Your task to perform on an android device: Clear the shopping cart on amazon.com. Add "razer nari" to the cart on amazon.com Image 0: 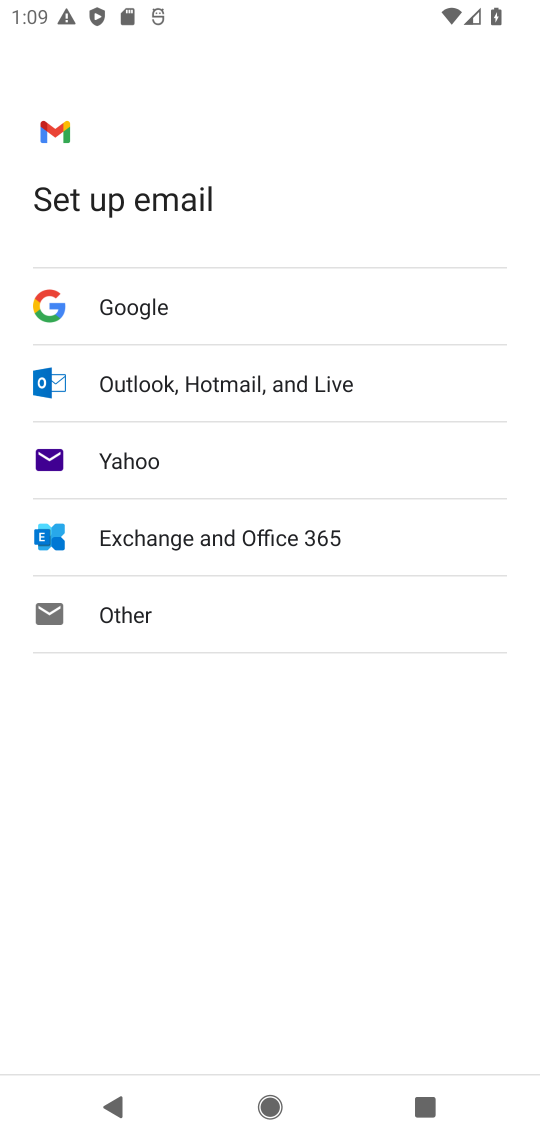
Step 0: press home button
Your task to perform on an android device: Clear the shopping cart on amazon.com. Add "razer nari" to the cart on amazon.com Image 1: 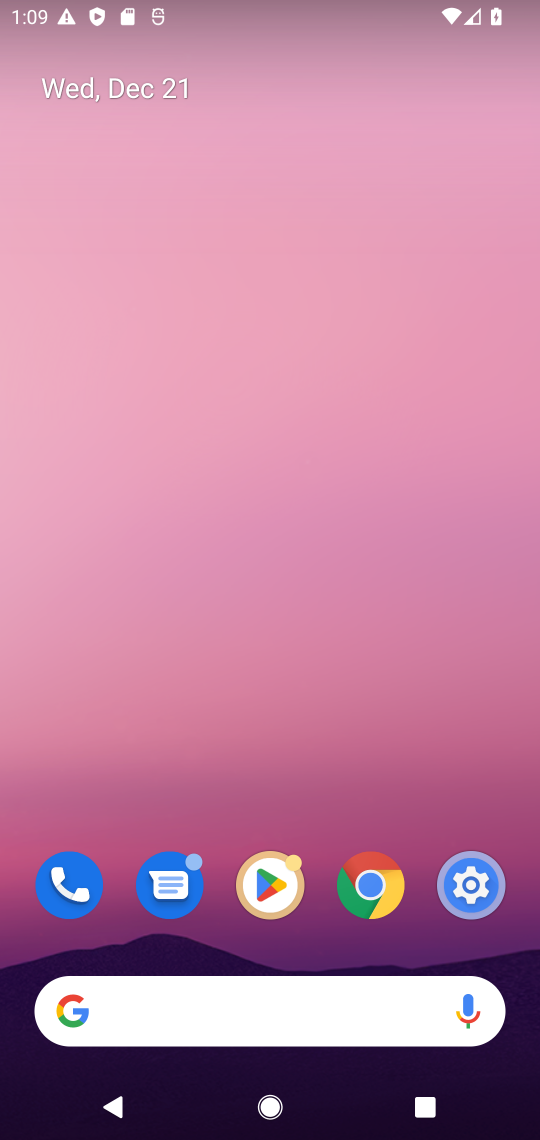
Step 1: drag from (285, 1027) to (296, 18)
Your task to perform on an android device: Clear the shopping cart on amazon.com. Add "razer nari" to the cart on amazon.com Image 2: 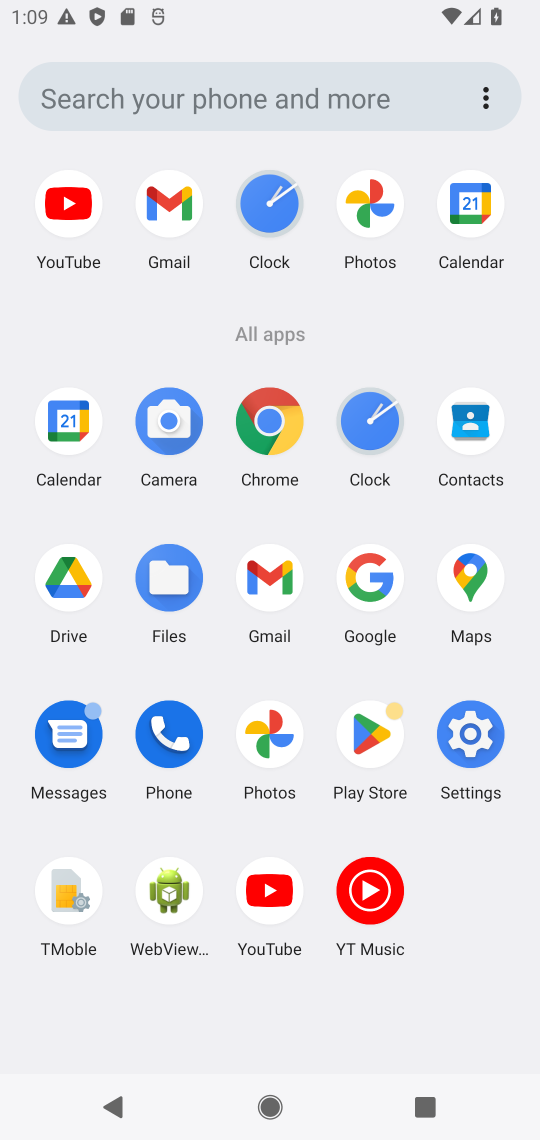
Step 2: click (366, 570)
Your task to perform on an android device: Clear the shopping cart on amazon.com. Add "razer nari" to the cart on amazon.com Image 3: 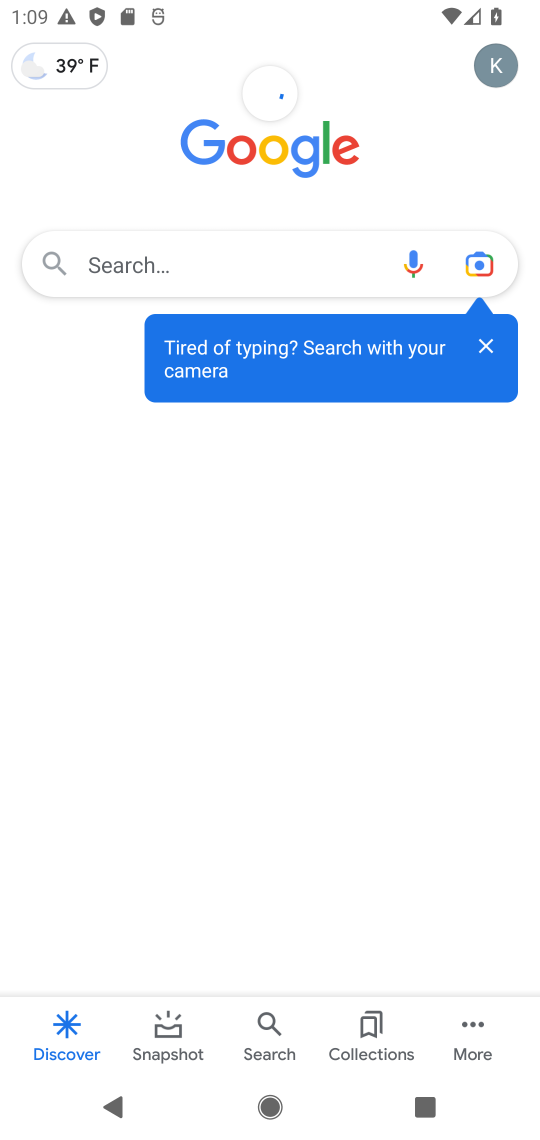
Step 3: click (193, 269)
Your task to perform on an android device: Clear the shopping cart on amazon.com. Add "razer nari" to the cart on amazon.com Image 4: 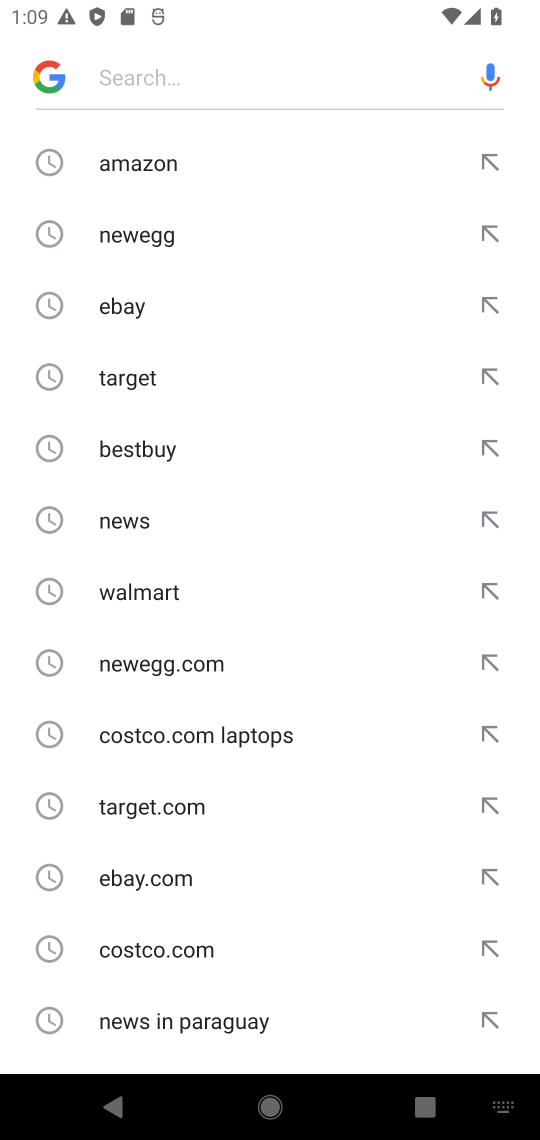
Step 4: click (137, 161)
Your task to perform on an android device: Clear the shopping cart on amazon.com. Add "razer nari" to the cart on amazon.com Image 5: 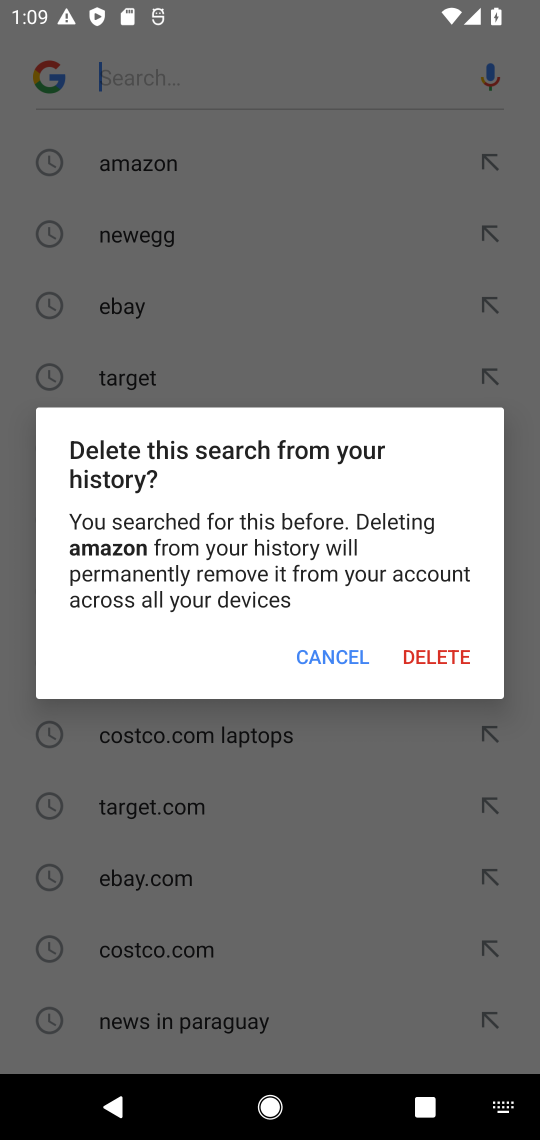
Step 5: click (349, 655)
Your task to perform on an android device: Clear the shopping cart on amazon.com. Add "razer nari" to the cart on amazon.com Image 6: 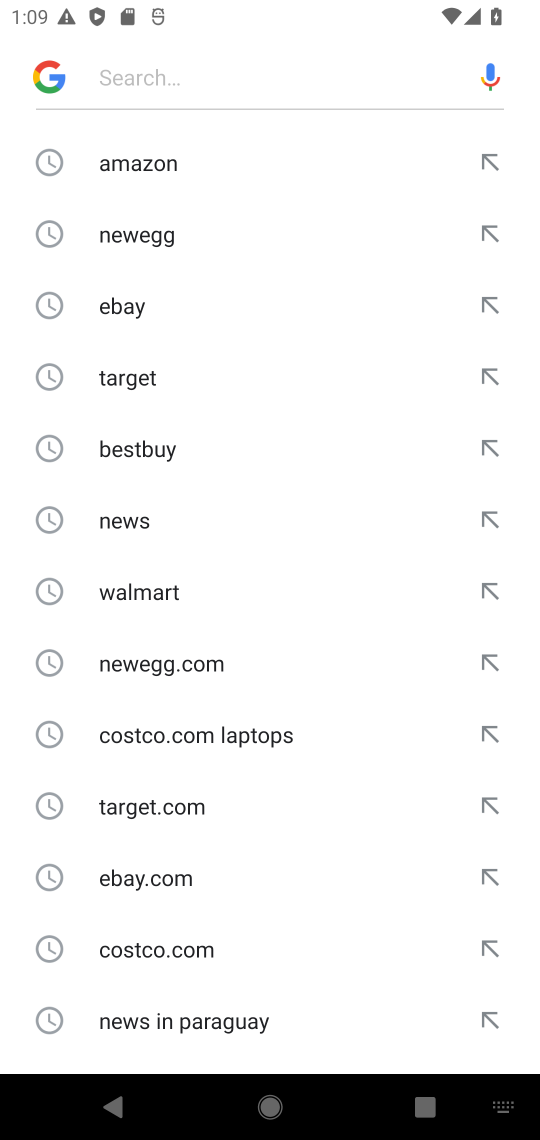
Step 6: click (116, 185)
Your task to perform on an android device: Clear the shopping cart on amazon.com. Add "razer nari" to the cart on amazon.com Image 7: 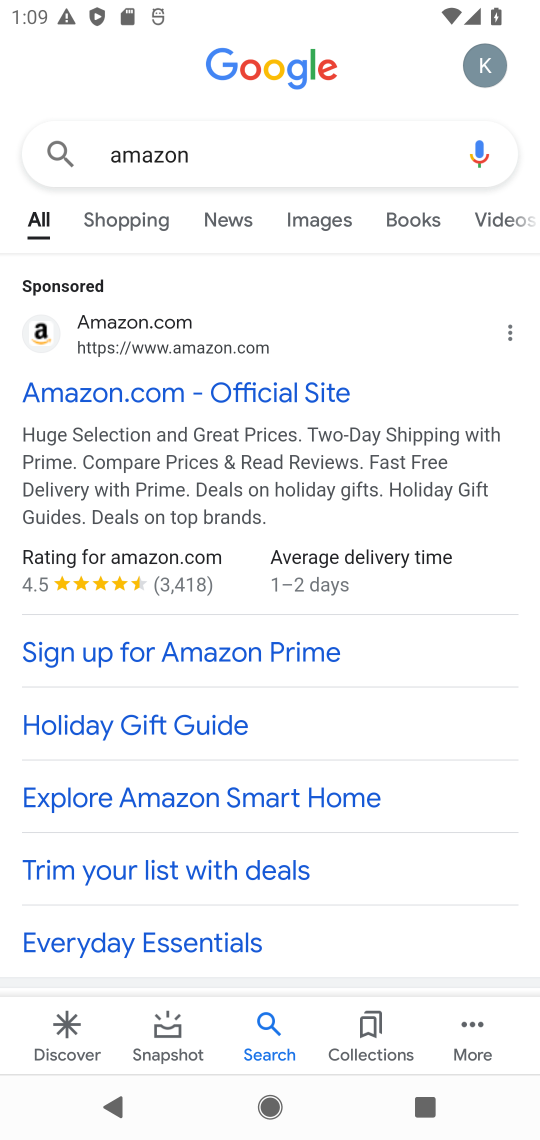
Step 7: click (167, 390)
Your task to perform on an android device: Clear the shopping cart on amazon.com. Add "razer nari" to the cart on amazon.com Image 8: 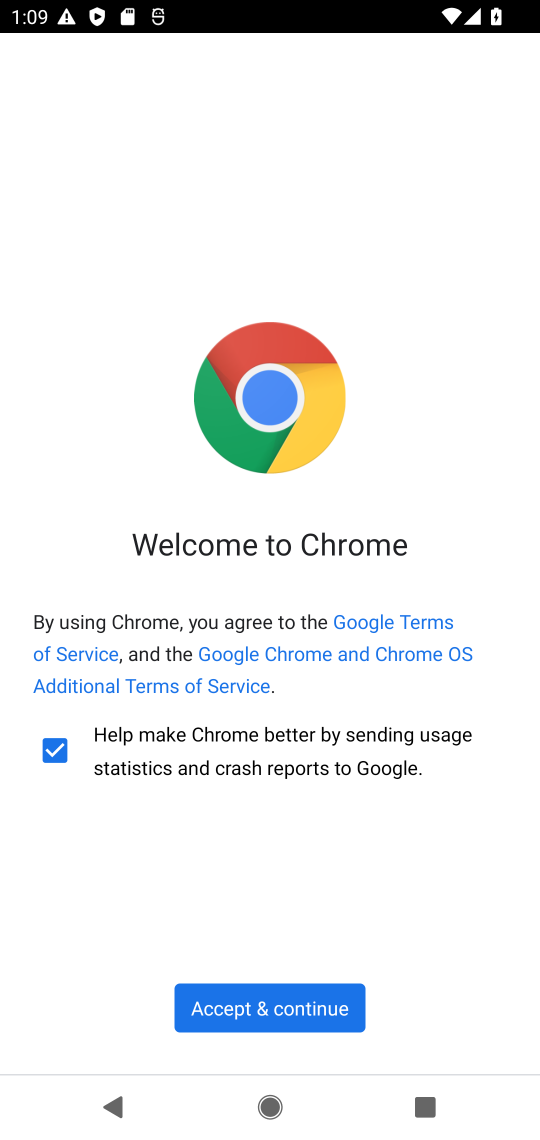
Step 8: click (240, 1006)
Your task to perform on an android device: Clear the shopping cart on amazon.com. Add "razer nari" to the cart on amazon.com Image 9: 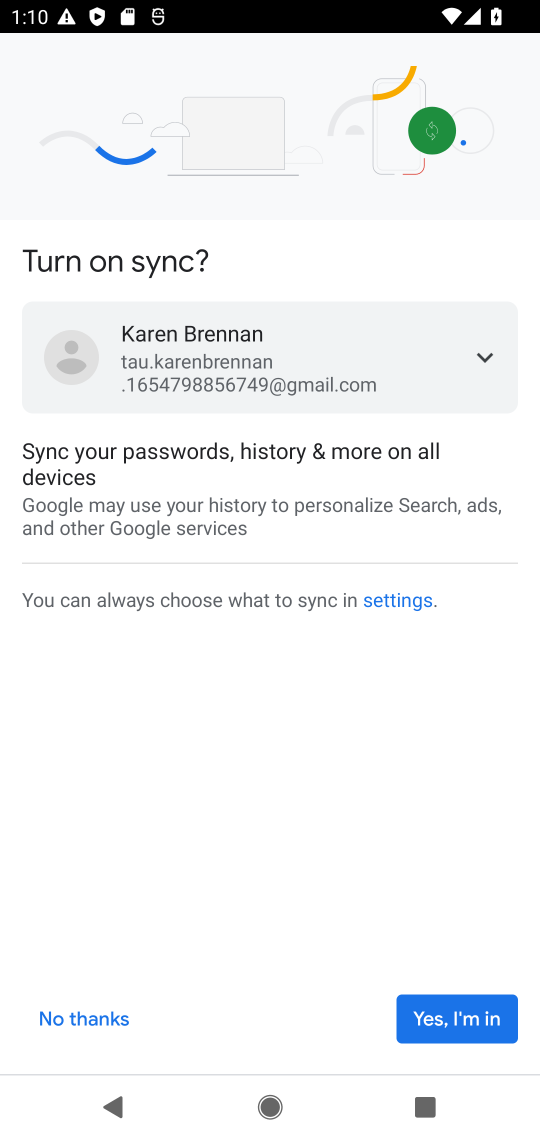
Step 9: click (408, 1022)
Your task to perform on an android device: Clear the shopping cart on amazon.com. Add "razer nari" to the cart on amazon.com Image 10: 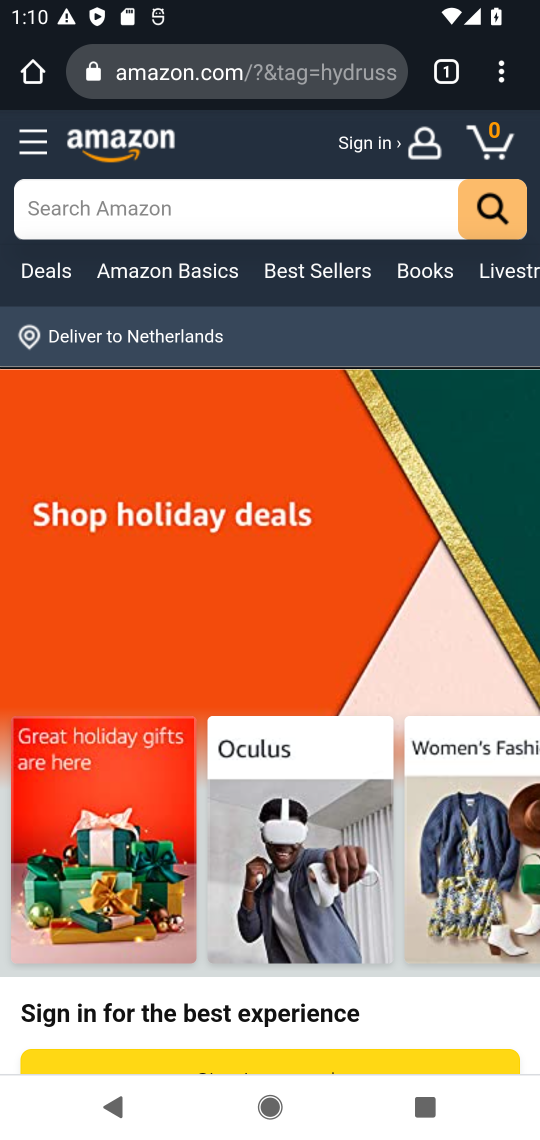
Step 10: click (80, 212)
Your task to perform on an android device: Clear the shopping cart on amazon.com. Add "razer nari" to the cart on amazon.com Image 11: 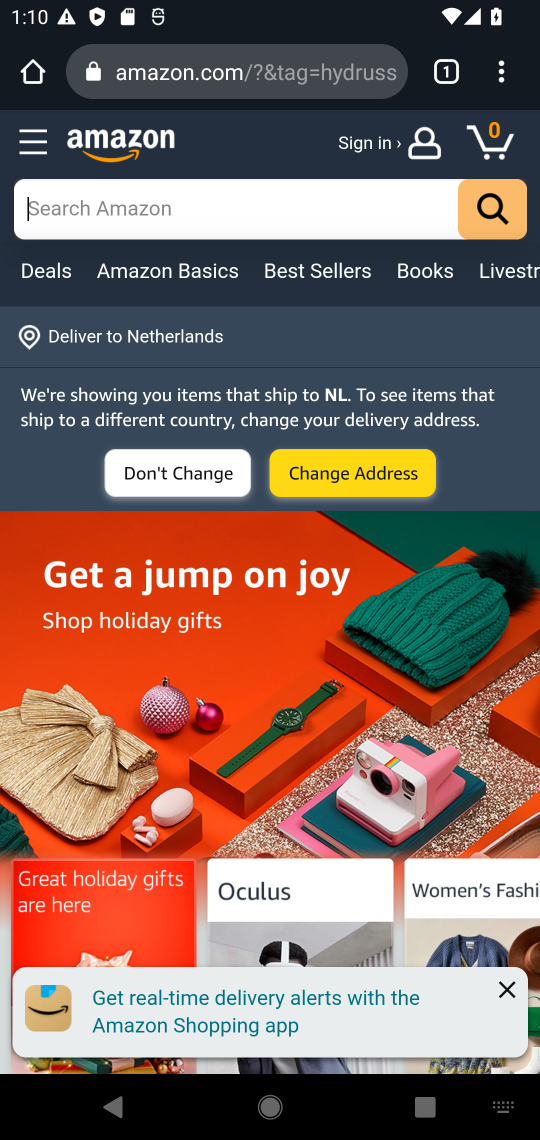
Step 11: type "razer nari"
Your task to perform on an android device: Clear the shopping cart on amazon.com. Add "razer nari" to the cart on amazon.com Image 12: 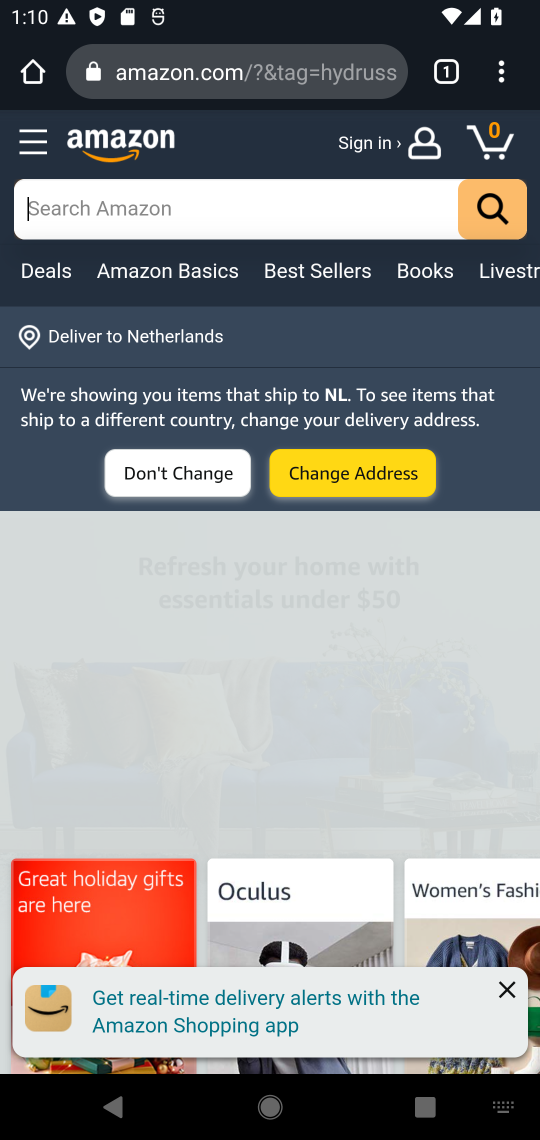
Step 12: click (463, 212)
Your task to perform on an android device: Clear the shopping cart on amazon.com. Add "razer nari" to the cart on amazon.com Image 13: 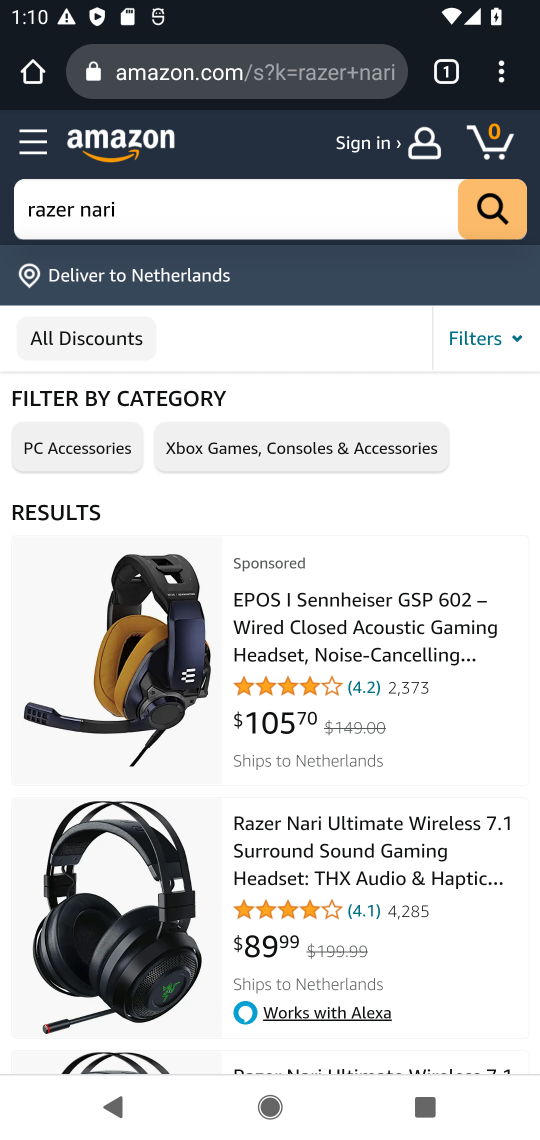
Step 13: click (339, 671)
Your task to perform on an android device: Clear the shopping cart on amazon.com. Add "razer nari" to the cart on amazon.com Image 14: 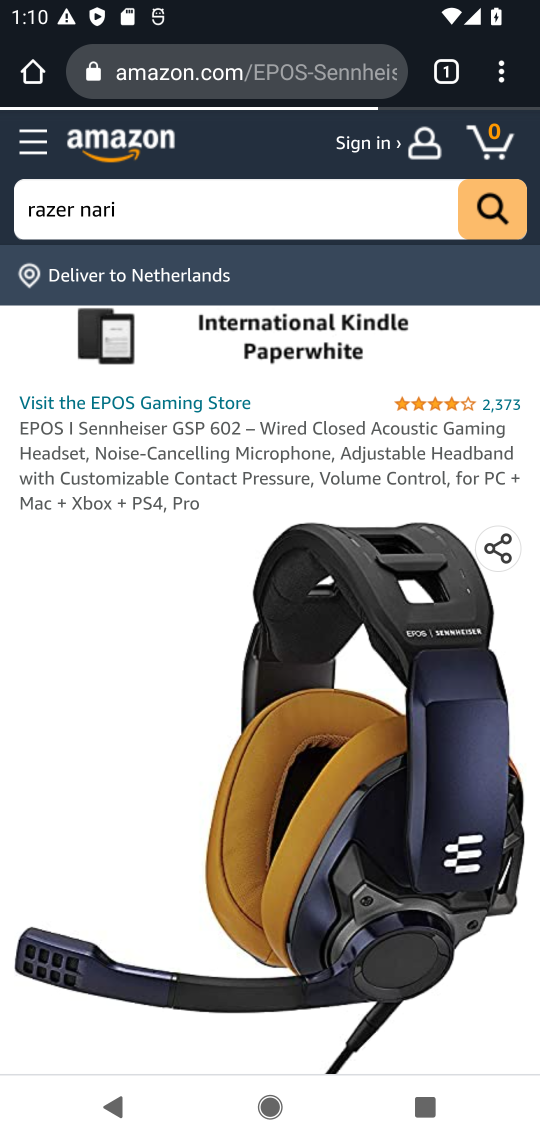
Step 14: drag from (341, 960) to (321, 312)
Your task to perform on an android device: Clear the shopping cart on amazon.com. Add "razer nari" to the cart on amazon.com Image 15: 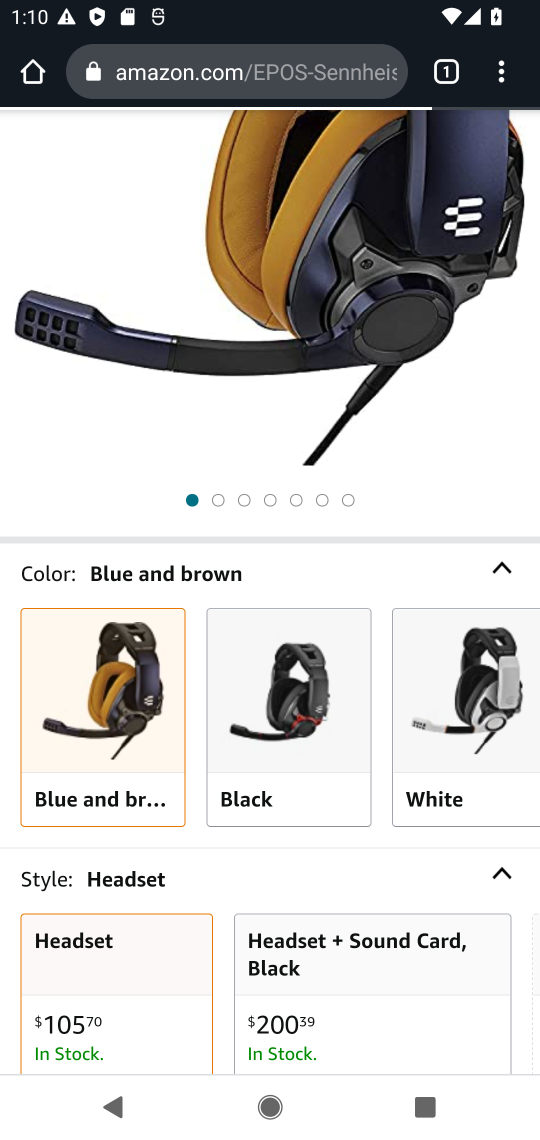
Step 15: drag from (261, 833) to (245, 454)
Your task to perform on an android device: Clear the shopping cart on amazon.com. Add "razer nari" to the cart on amazon.com Image 16: 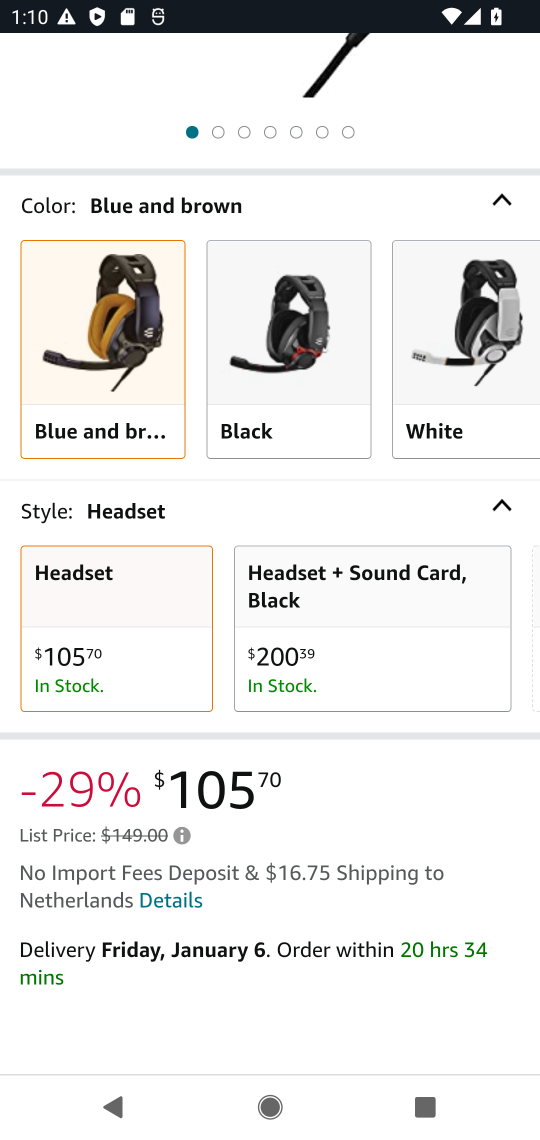
Step 16: drag from (229, 931) to (229, 464)
Your task to perform on an android device: Clear the shopping cart on amazon.com. Add "razer nari" to the cart on amazon.com Image 17: 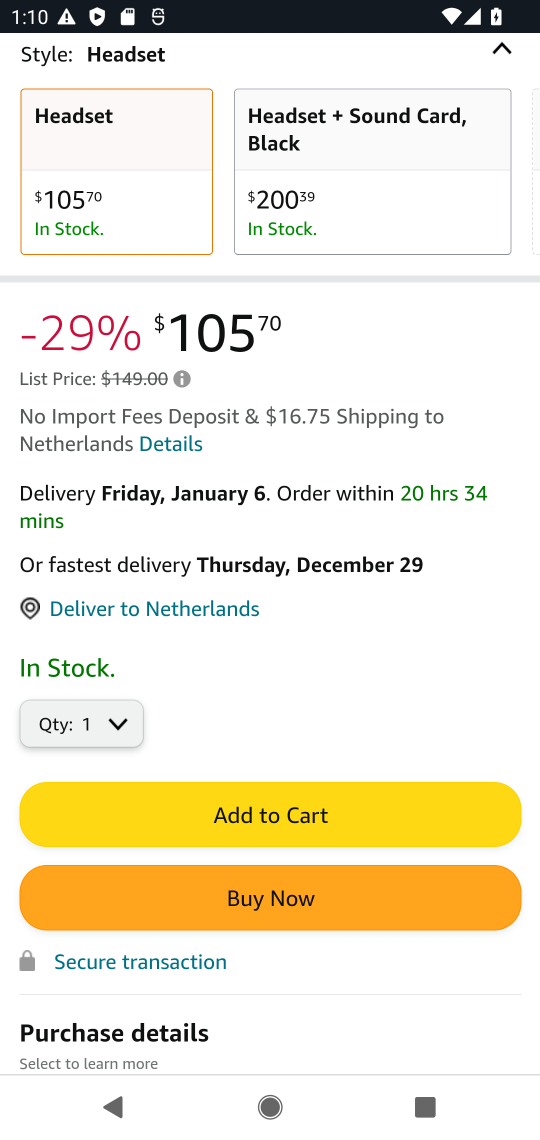
Step 17: click (229, 806)
Your task to perform on an android device: Clear the shopping cart on amazon.com. Add "razer nari" to the cart on amazon.com Image 18: 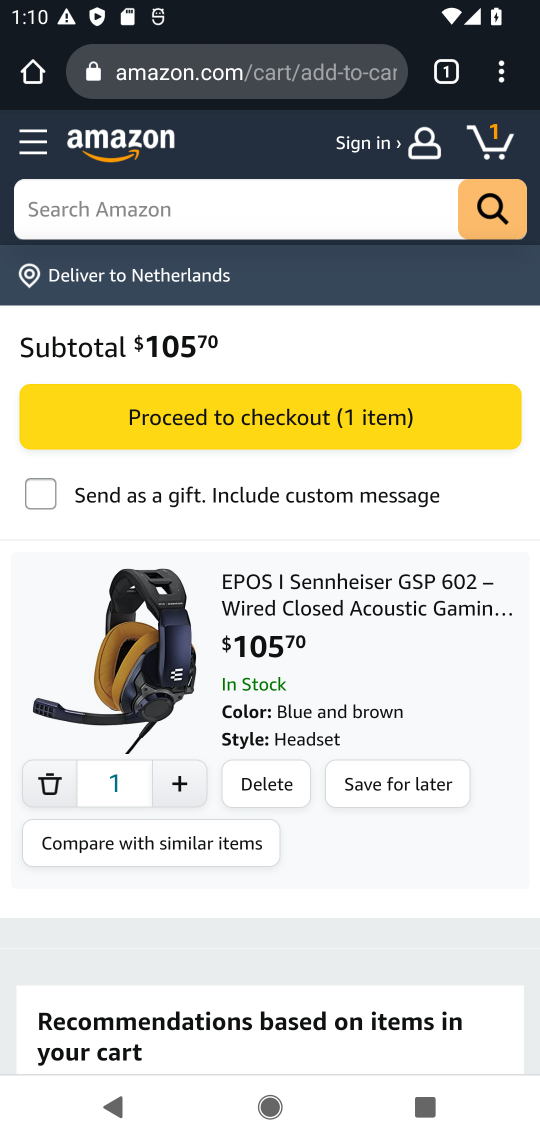
Step 18: task complete